Your task to perform on an android device: turn vacation reply on in the gmail app Image 0: 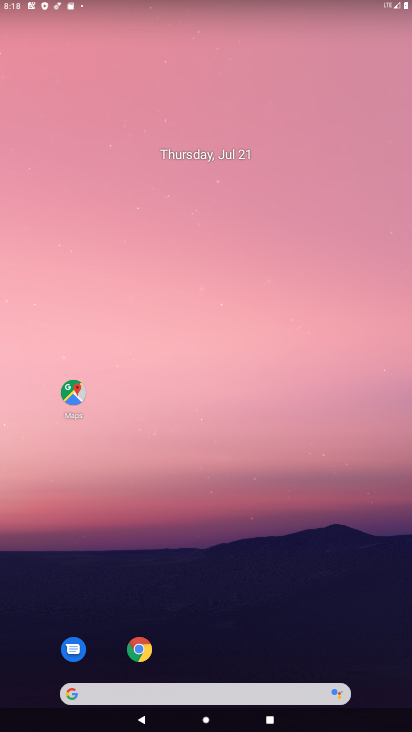
Step 0: drag from (221, 655) to (264, 12)
Your task to perform on an android device: turn vacation reply on in the gmail app Image 1: 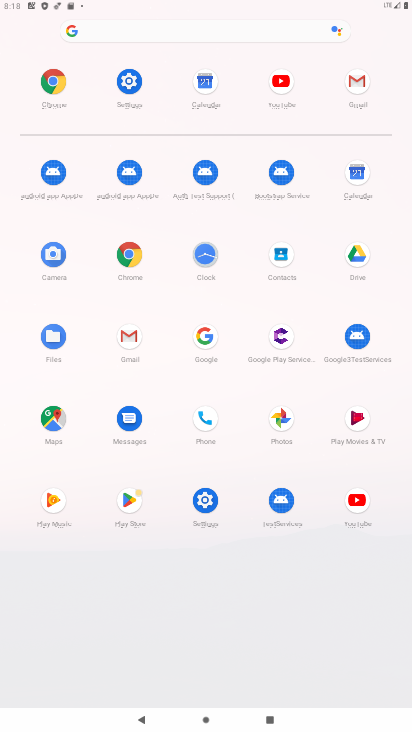
Step 1: click (131, 338)
Your task to perform on an android device: turn vacation reply on in the gmail app Image 2: 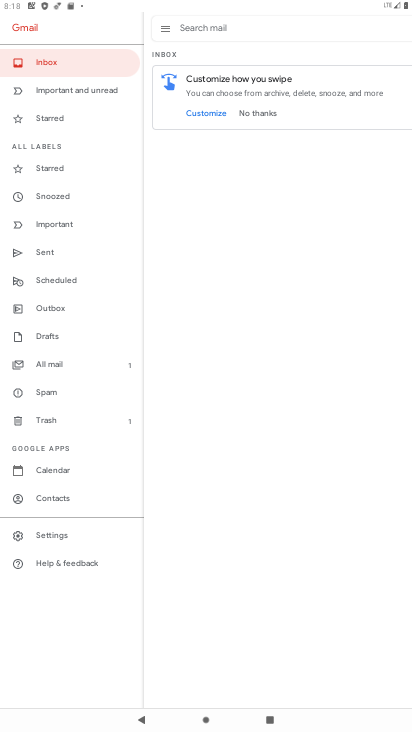
Step 2: click (62, 538)
Your task to perform on an android device: turn vacation reply on in the gmail app Image 3: 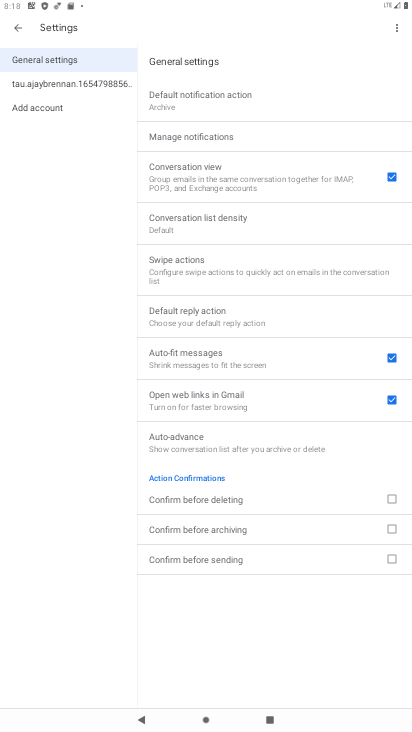
Step 3: click (57, 84)
Your task to perform on an android device: turn vacation reply on in the gmail app Image 4: 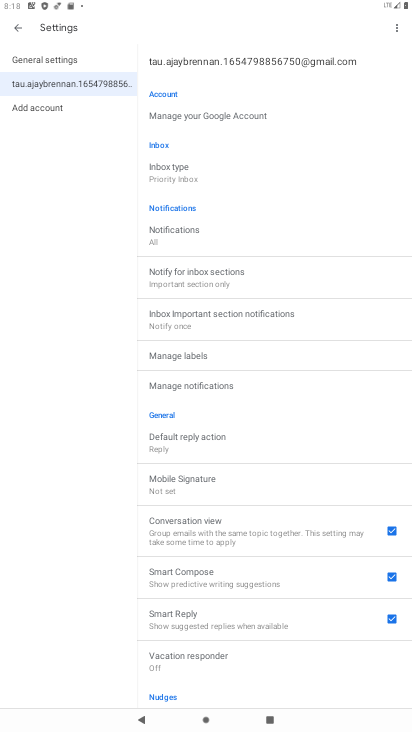
Step 4: drag from (232, 667) to (231, 534)
Your task to perform on an android device: turn vacation reply on in the gmail app Image 5: 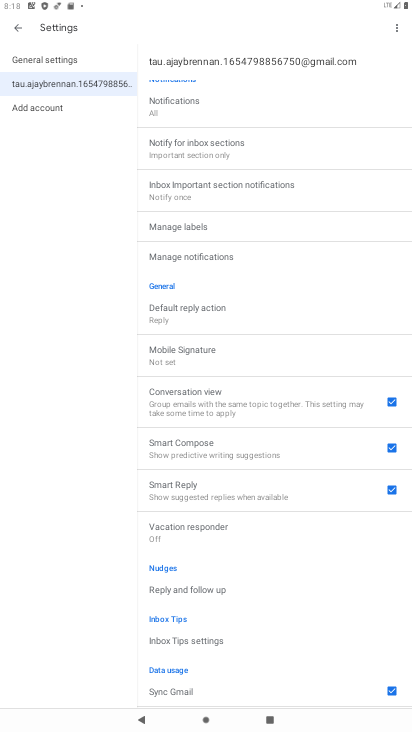
Step 5: click (203, 528)
Your task to perform on an android device: turn vacation reply on in the gmail app Image 6: 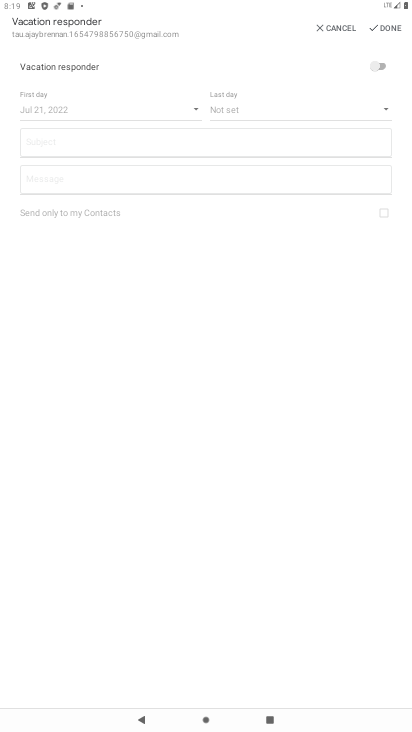
Step 6: click (395, 67)
Your task to perform on an android device: turn vacation reply on in the gmail app Image 7: 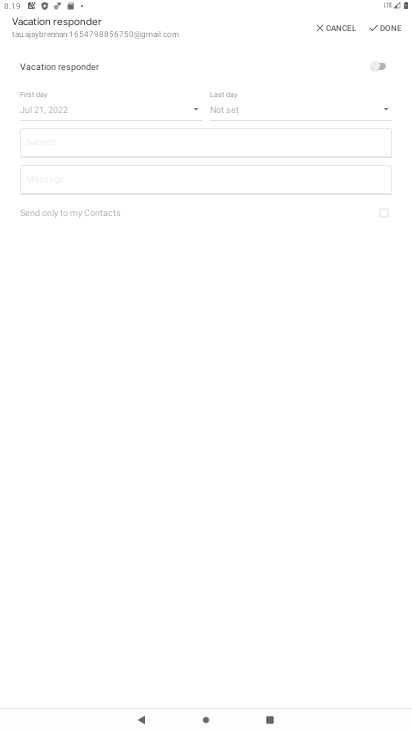
Step 7: click (386, 60)
Your task to perform on an android device: turn vacation reply on in the gmail app Image 8: 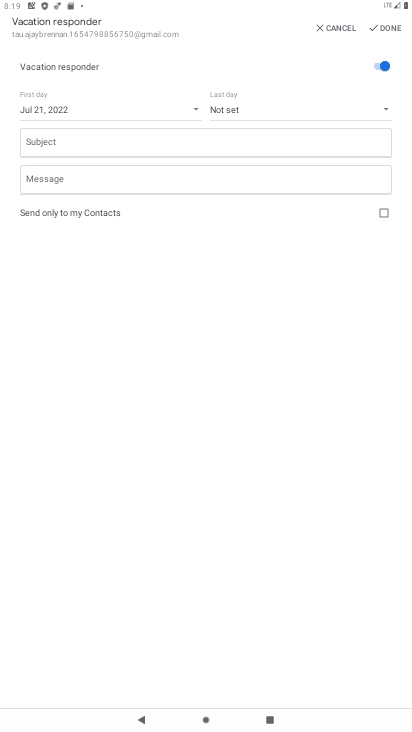
Step 8: click (266, 179)
Your task to perform on an android device: turn vacation reply on in the gmail app Image 9: 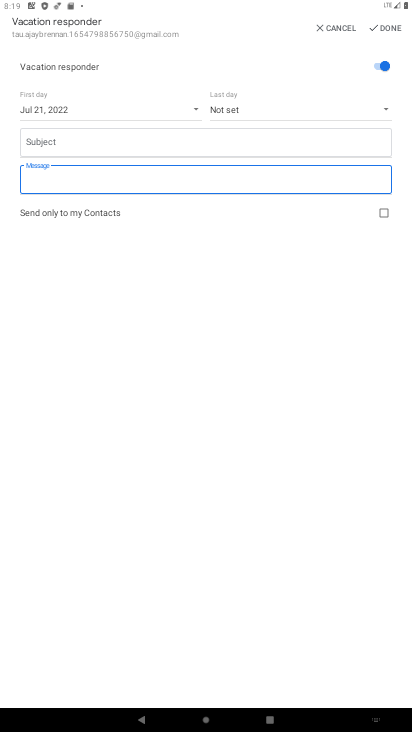
Step 9: type "Message"
Your task to perform on an android device: turn vacation reply on in the gmail app Image 10: 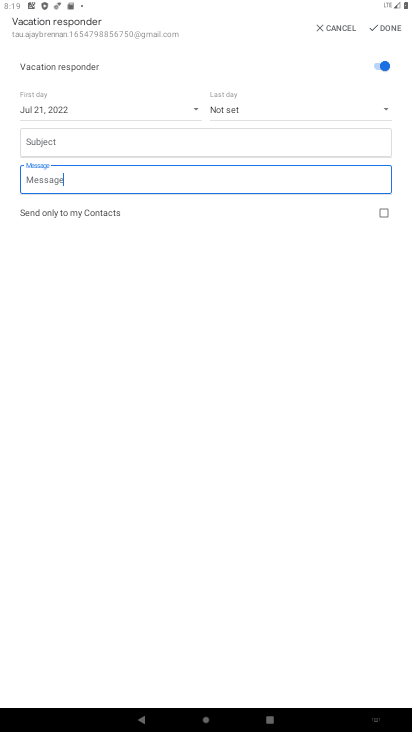
Step 10: click (376, 21)
Your task to perform on an android device: turn vacation reply on in the gmail app Image 11: 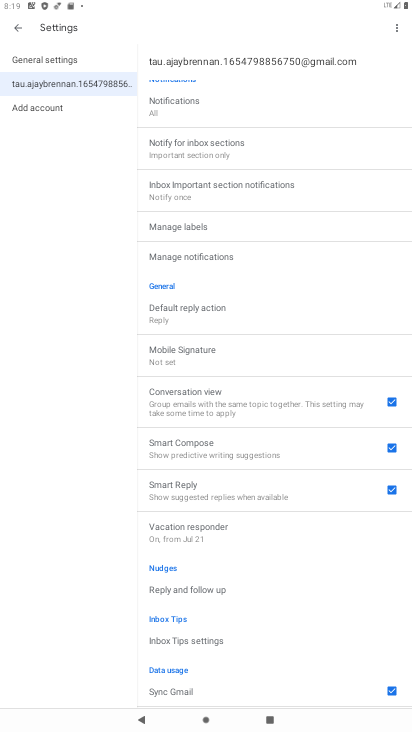
Step 11: task complete